Your task to perform on an android device: toggle priority inbox in the gmail app Image 0: 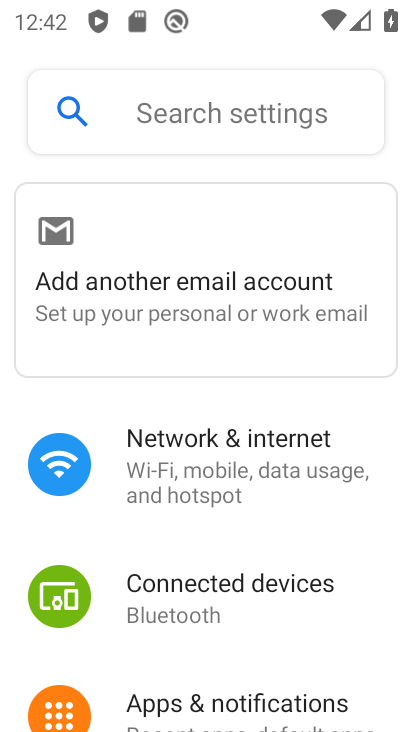
Step 0: press home button
Your task to perform on an android device: toggle priority inbox in the gmail app Image 1: 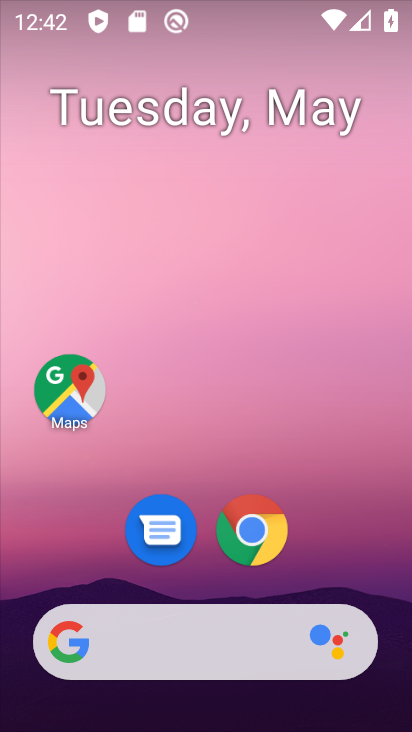
Step 1: drag from (183, 532) to (168, 260)
Your task to perform on an android device: toggle priority inbox in the gmail app Image 2: 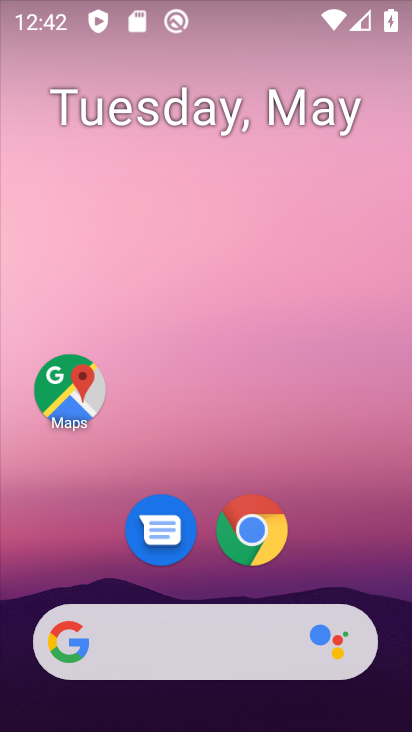
Step 2: drag from (202, 564) to (284, 88)
Your task to perform on an android device: toggle priority inbox in the gmail app Image 3: 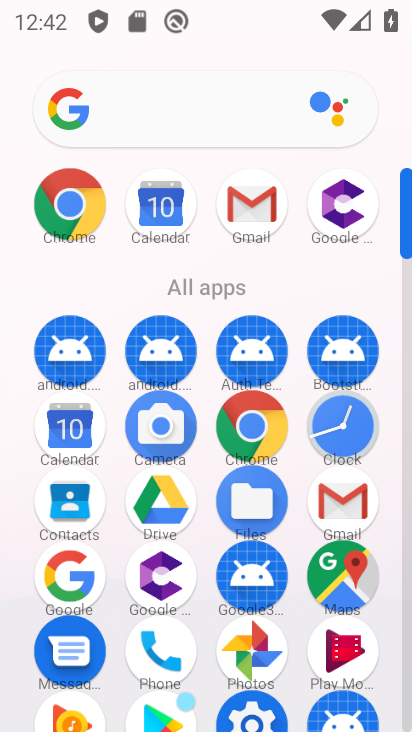
Step 3: click (245, 202)
Your task to perform on an android device: toggle priority inbox in the gmail app Image 4: 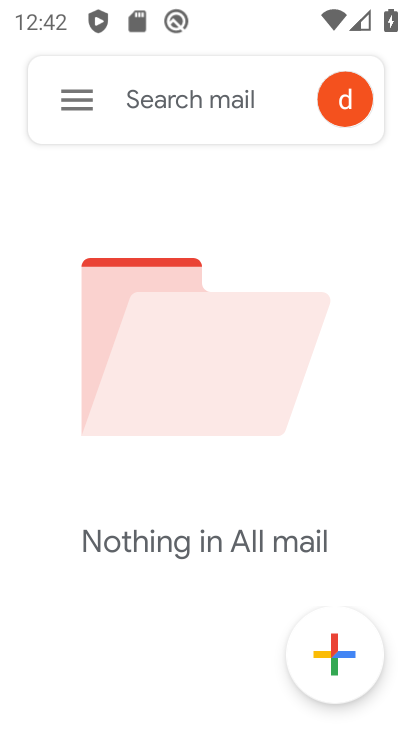
Step 4: click (75, 98)
Your task to perform on an android device: toggle priority inbox in the gmail app Image 5: 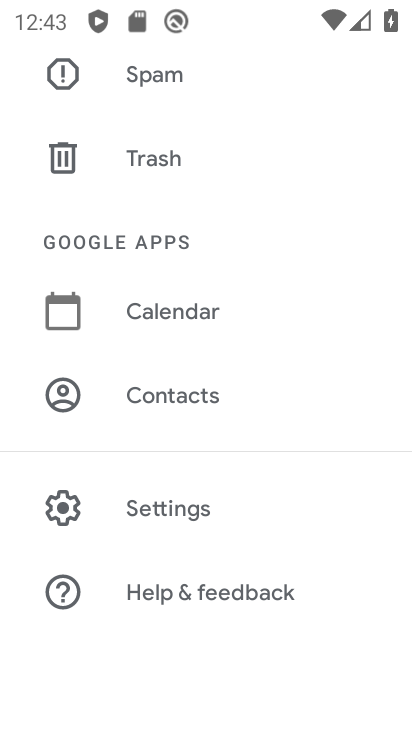
Step 5: click (201, 500)
Your task to perform on an android device: toggle priority inbox in the gmail app Image 6: 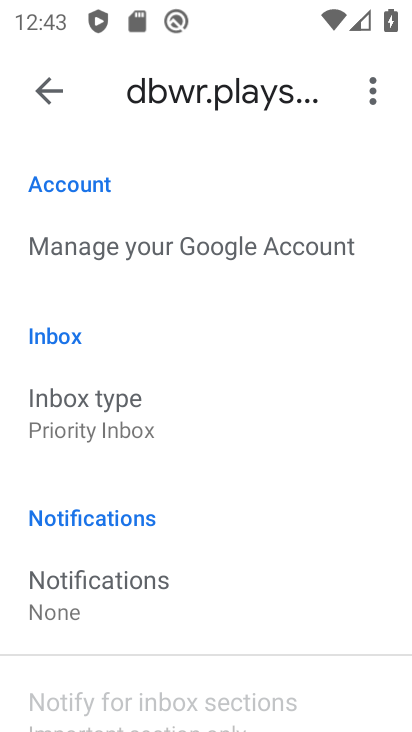
Step 6: click (132, 430)
Your task to perform on an android device: toggle priority inbox in the gmail app Image 7: 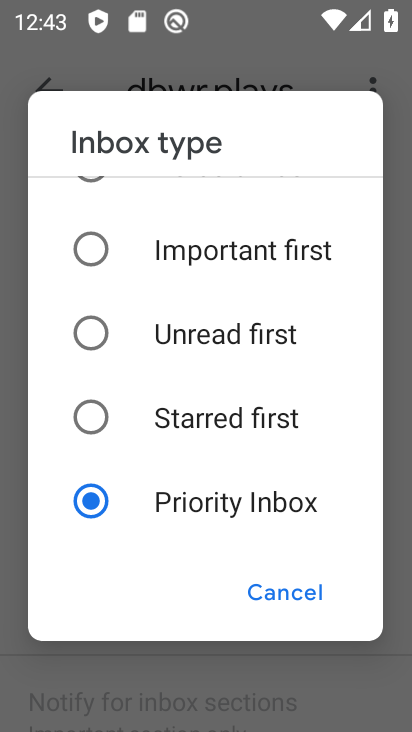
Step 7: click (204, 187)
Your task to perform on an android device: toggle priority inbox in the gmail app Image 8: 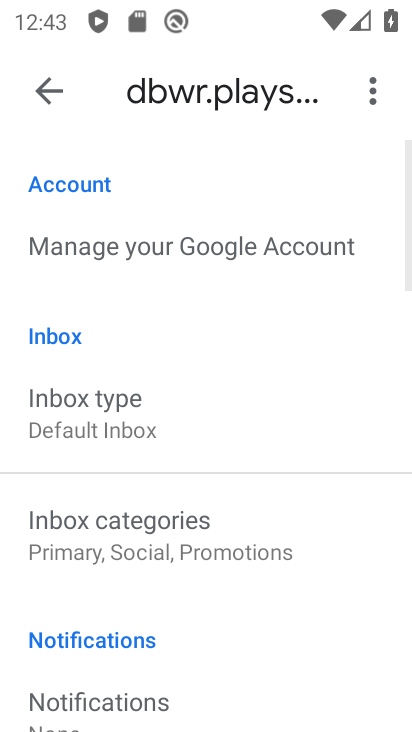
Step 8: task complete